Your task to perform on an android device: What's the weather going to be tomorrow? Image 0: 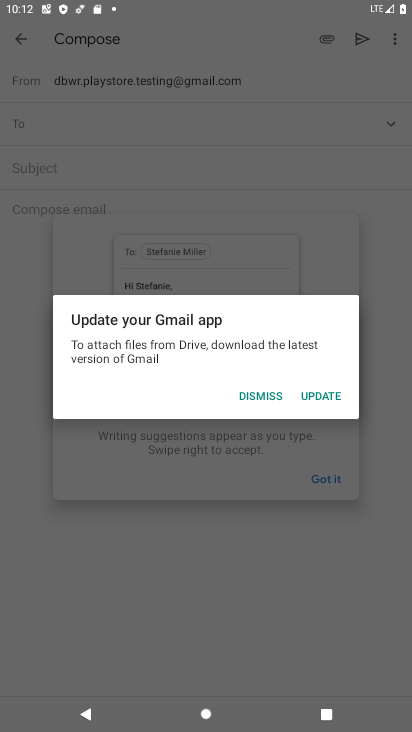
Step 0: press home button
Your task to perform on an android device: What's the weather going to be tomorrow? Image 1: 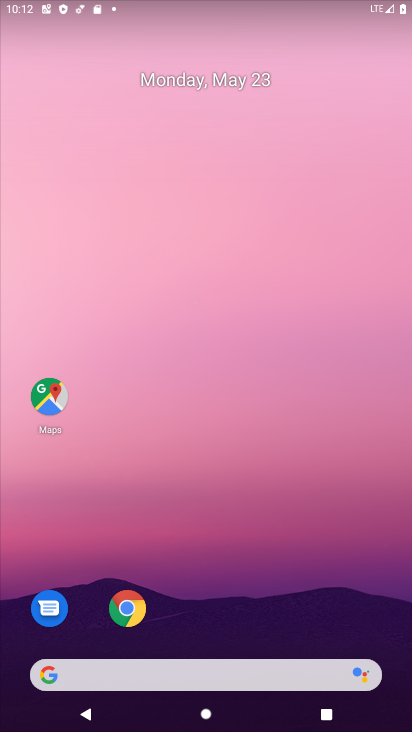
Step 1: drag from (5, 312) to (412, 266)
Your task to perform on an android device: What's the weather going to be tomorrow? Image 2: 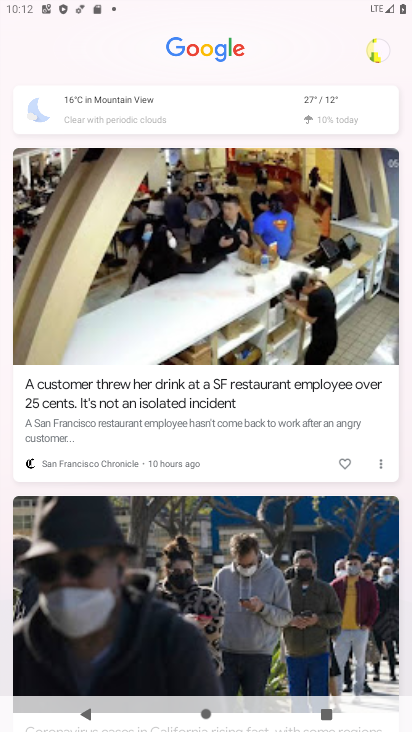
Step 2: click (337, 124)
Your task to perform on an android device: What's the weather going to be tomorrow? Image 3: 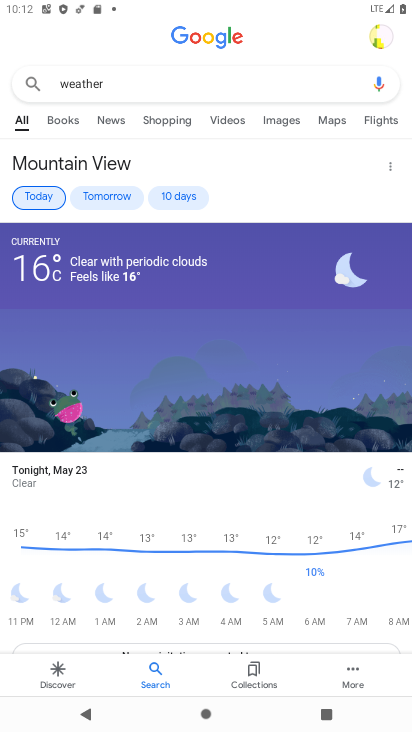
Step 3: click (124, 210)
Your task to perform on an android device: What's the weather going to be tomorrow? Image 4: 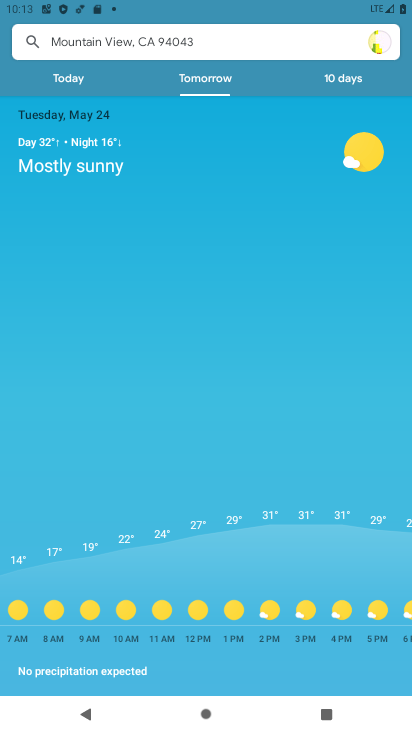
Step 4: task complete